Your task to perform on an android device: Go to CNN.com Image 0: 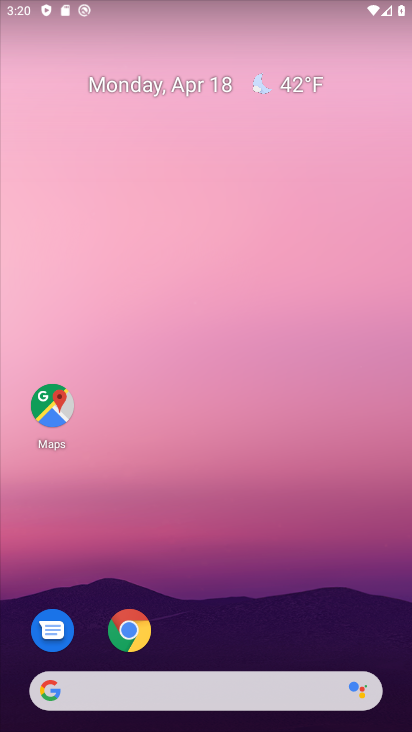
Step 0: click (322, 131)
Your task to perform on an android device: Go to CNN.com Image 1: 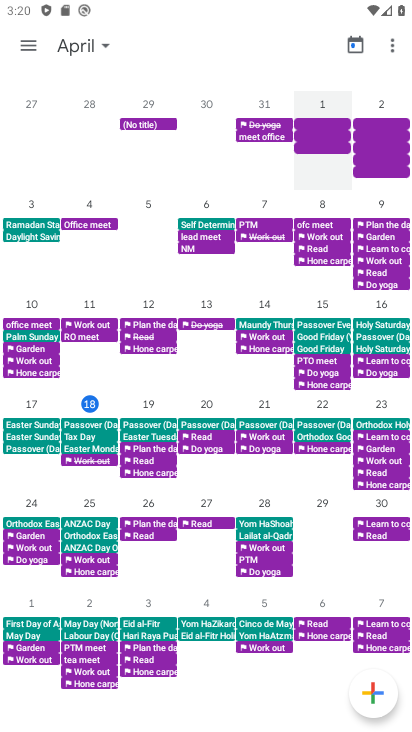
Step 1: drag from (251, 313) to (255, 146)
Your task to perform on an android device: Go to CNN.com Image 2: 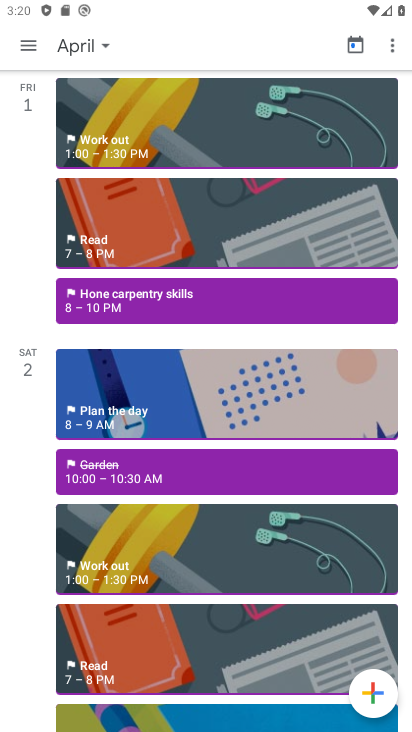
Step 2: press home button
Your task to perform on an android device: Go to CNN.com Image 3: 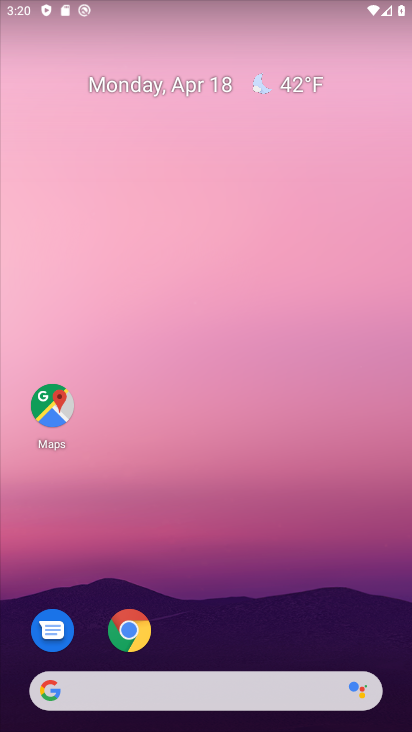
Step 3: drag from (203, 548) to (258, 131)
Your task to perform on an android device: Go to CNN.com Image 4: 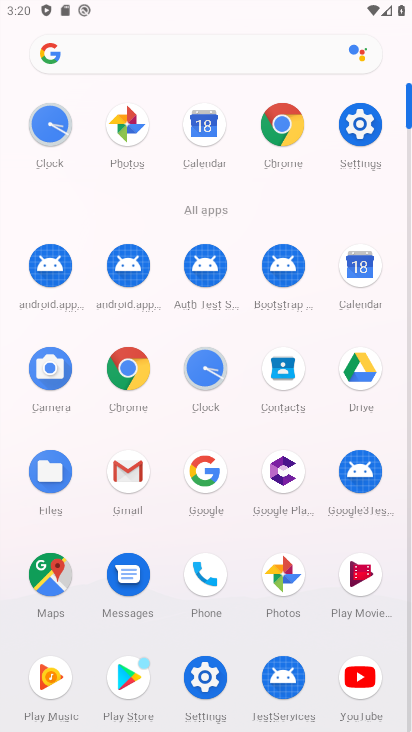
Step 4: click (271, 129)
Your task to perform on an android device: Go to CNN.com Image 5: 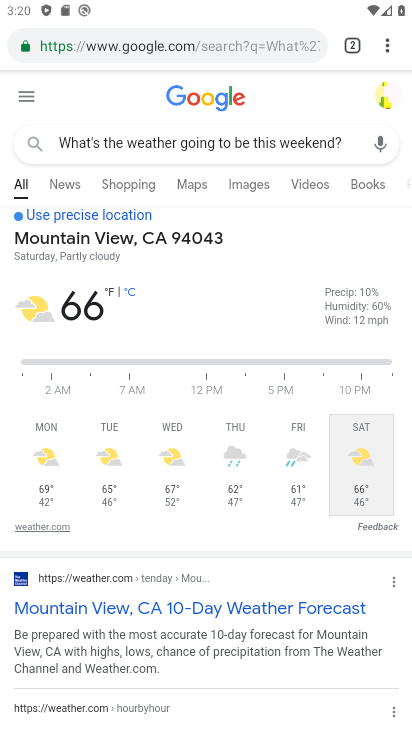
Step 5: click (385, 39)
Your task to perform on an android device: Go to CNN.com Image 6: 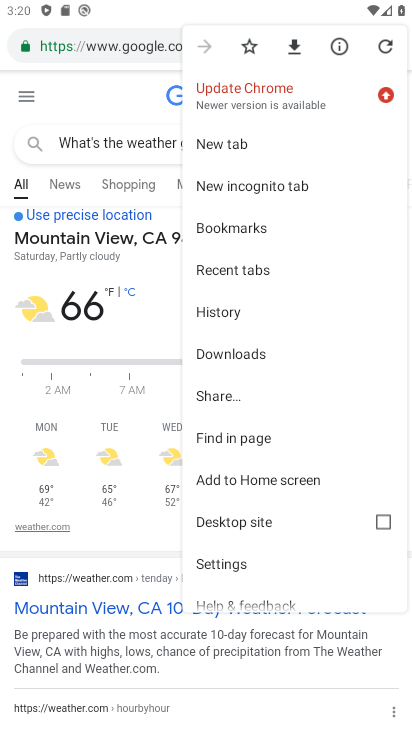
Step 6: click (254, 153)
Your task to perform on an android device: Go to CNN.com Image 7: 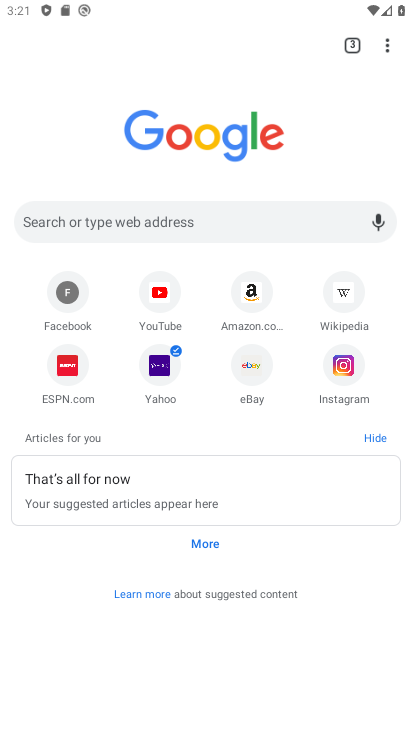
Step 7: click (165, 213)
Your task to perform on an android device: Go to CNN.com Image 8: 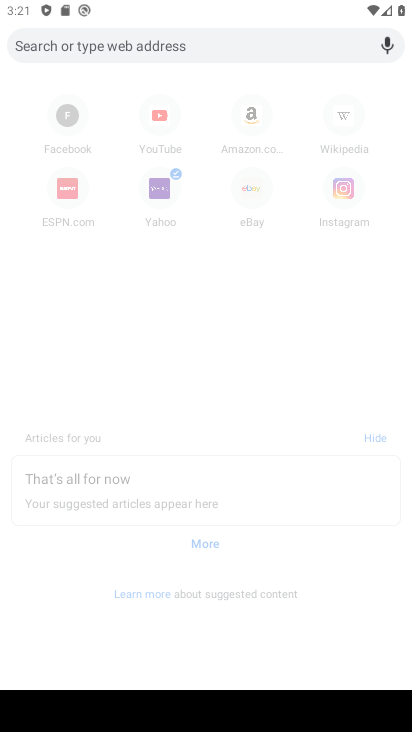
Step 8: type "CNN.com"
Your task to perform on an android device: Go to CNN.com Image 9: 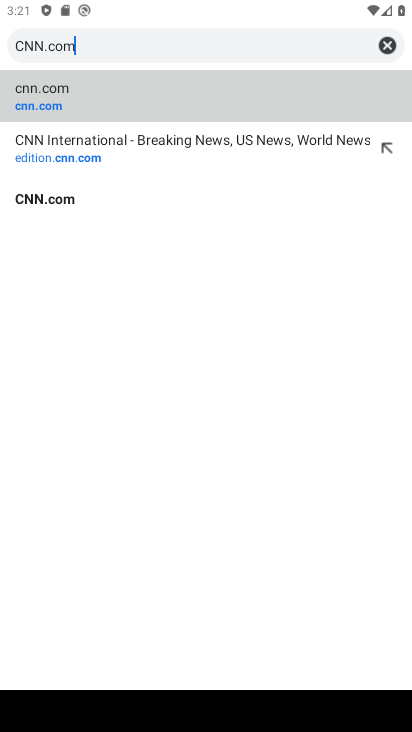
Step 9: click (183, 96)
Your task to perform on an android device: Go to CNN.com Image 10: 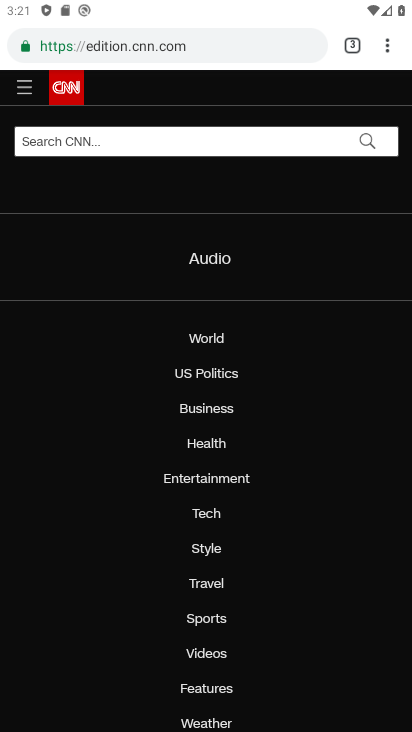
Step 10: task complete